Your task to perform on an android device: Open the Play Movies app and select the watchlist tab. Image 0: 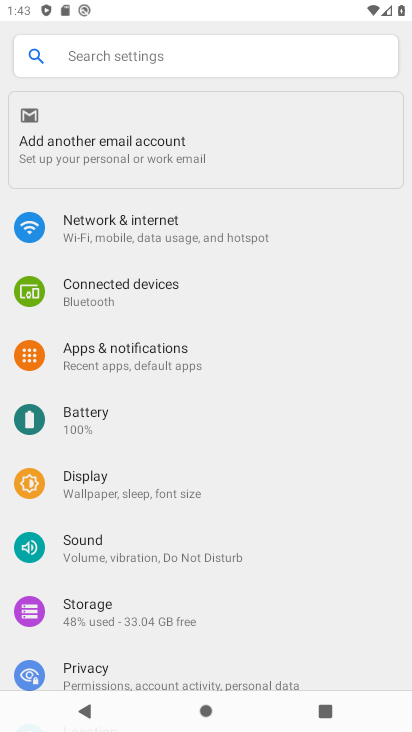
Step 0: press back button
Your task to perform on an android device: Open the Play Movies app and select the watchlist tab. Image 1: 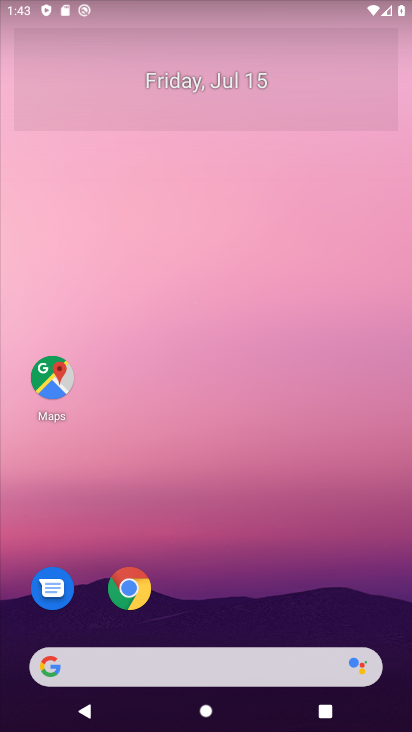
Step 1: drag from (279, 555) to (275, 74)
Your task to perform on an android device: Open the Play Movies app and select the watchlist tab. Image 2: 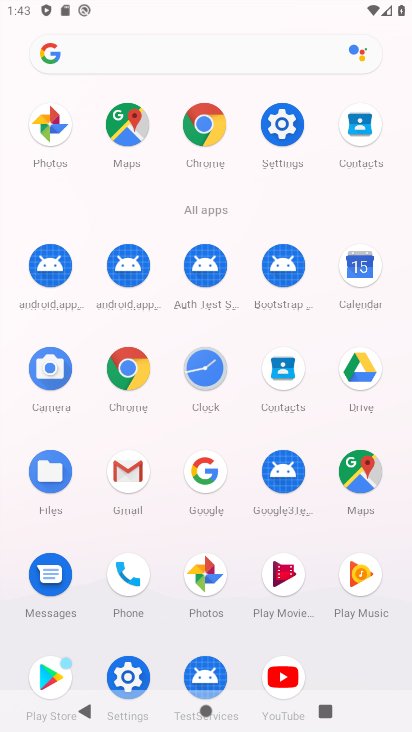
Step 2: click (281, 572)
Your task to perform on an android device: Open the Play Movies app and select the watchlist tab. Image 3: 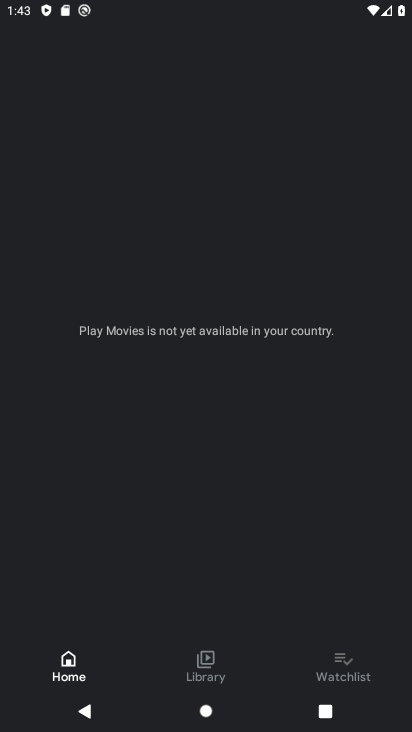
Step 3: click (339, 671)
Your task to perform on an android device: Open the Play Movies app and select the watchlist tab. Image 4: 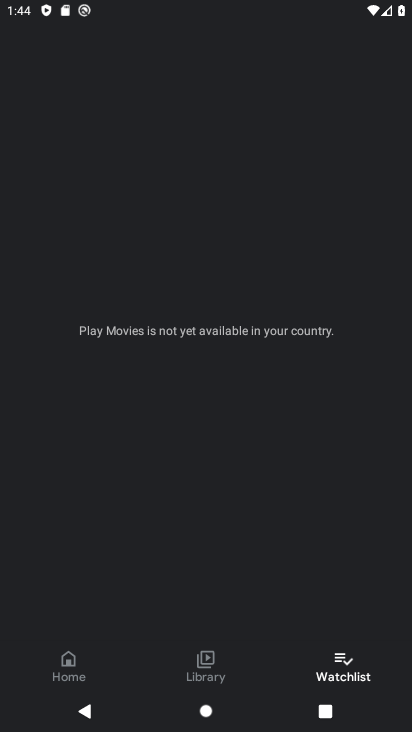
Step 4: task complete